Your task to perform on an android device: change notification settings in the gmail app Image 0: 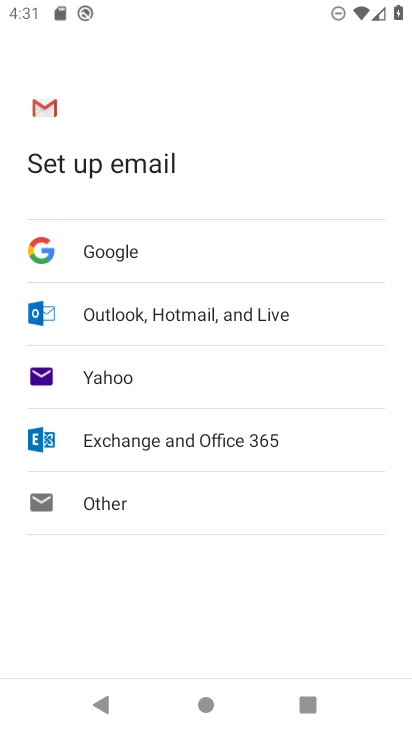
Step 0: press home button
Your task to perform on an android device: change notification settings in the gmail app Image 1: 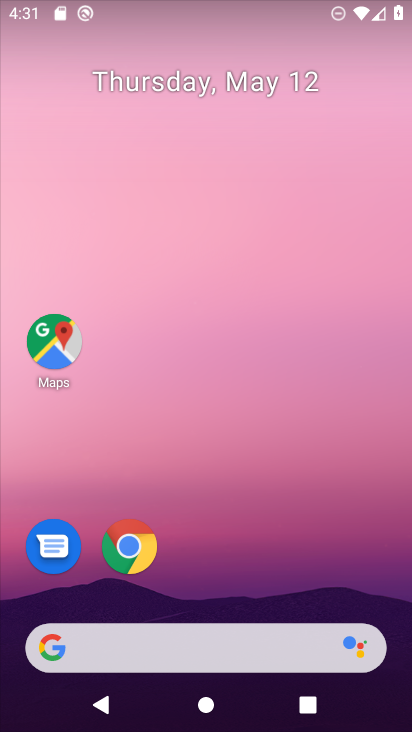
Step 1: drag from (250, 537) to (225, 192)
Your task to perform on an android device: change notification settings in the gmail app Image 2: 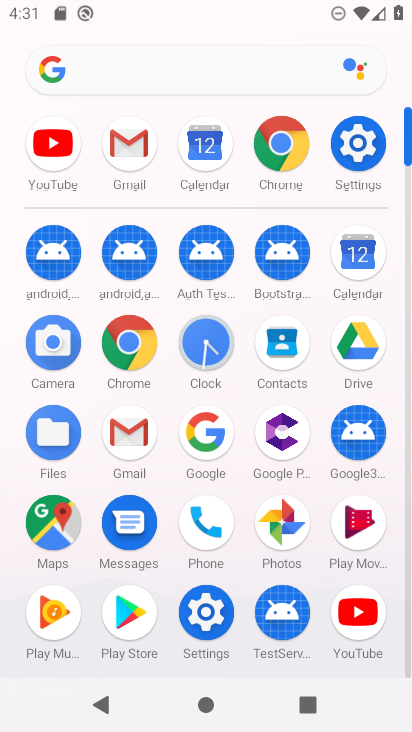
Step 2: click (128, 141)
Your task to perform on an android device: change notification settings in the gmail app Image 3: 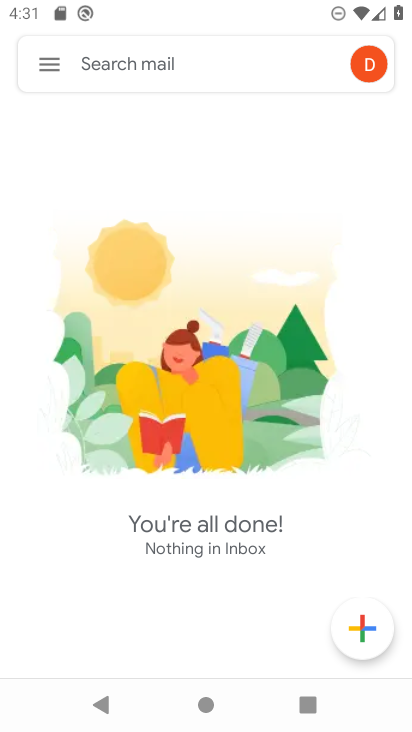
Step 3: click (50, 56)
Your task to perform on an android device: change notification settings in the gmail app Image 4: 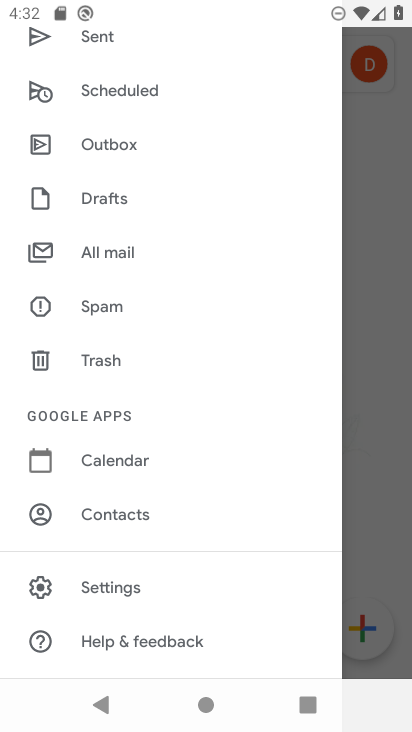
Step 4: click (129, 581)
Your task to perform on an android device: change notification settings in the gmail app Image 5: 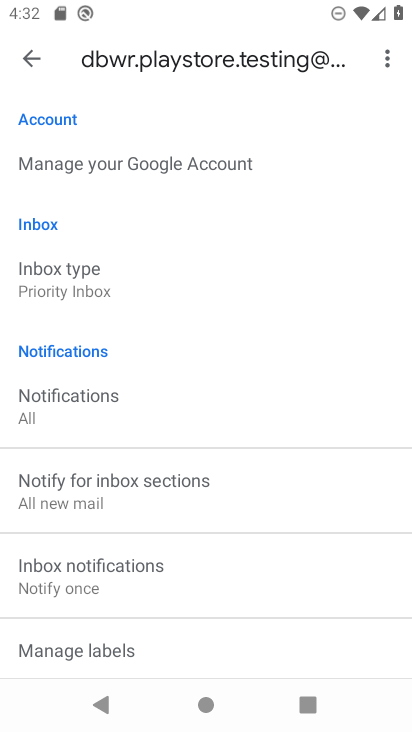
Step 5: click (79, 398)
Your task to perform on an android device: change notification settings in the gmail app Image 6: 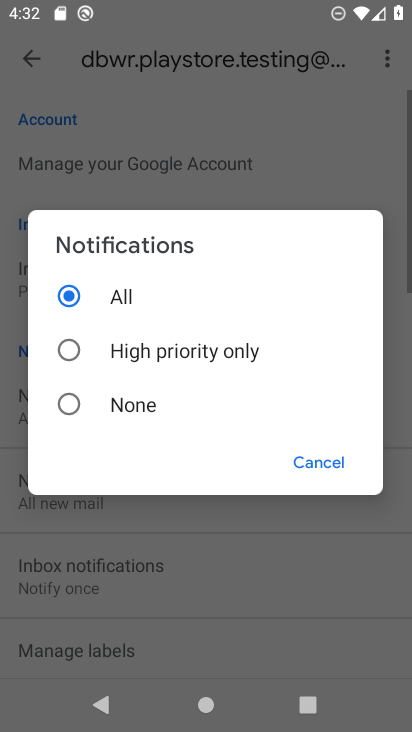
Step 6: click (124, 410)
Your task to perform on an android device: change notification settings in the gmail app Image 7: 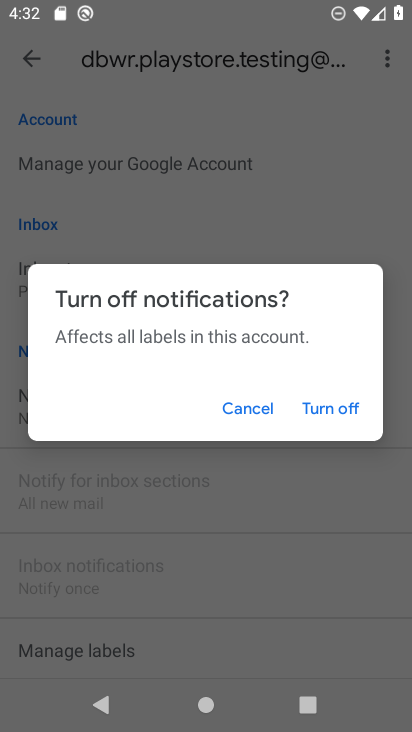
Step 7: click (332, 407)
Your task to perform on an android device: change notification settings in the gmail app Image 8: 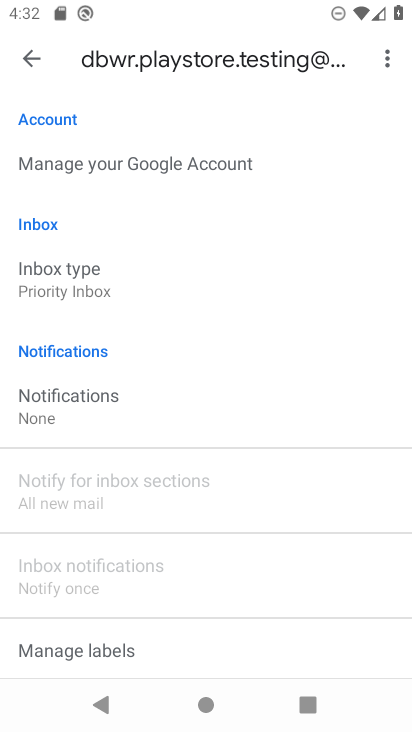
Step 8: task complete